Your task to perform on an android device: Open Maps and search for coffee Image 0: 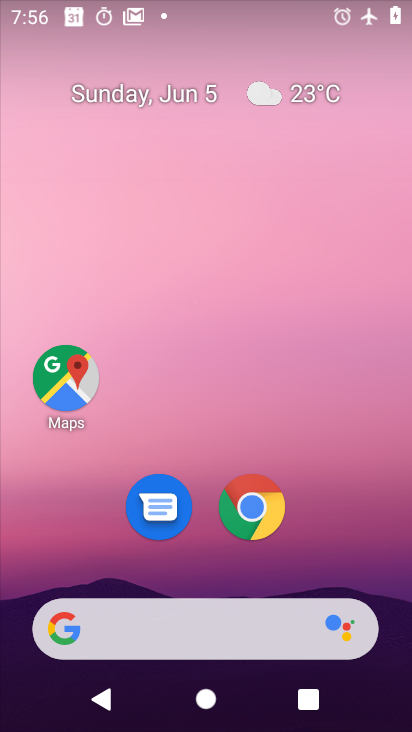
Step 0: drag from (287, 663) to (250, 205)
Your task to perform on an android device: Open Maps and search for coffee Image 1: 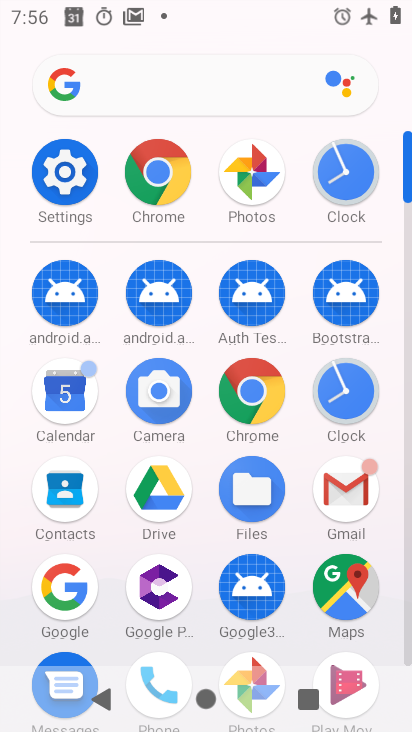
Step 1: click (353, 573)
Your task to perform on an android device: Open Maps and search for coffee Image 2: 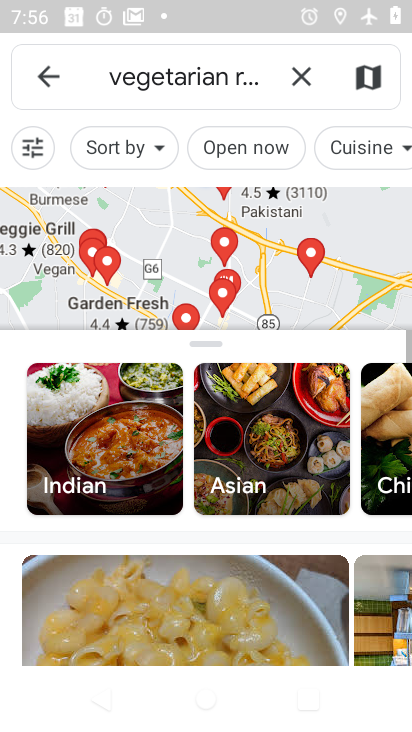
Step 2: click (294, 69)
Your task to perform on an android device: Open Maps and search for coffee Image 3: 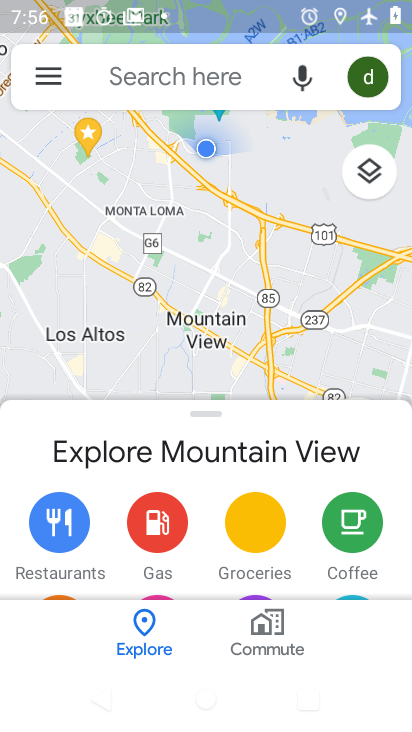
Step 3: click (183, 74)
Your task to perform on an android device: Open Maps and search for coffee Image 4: 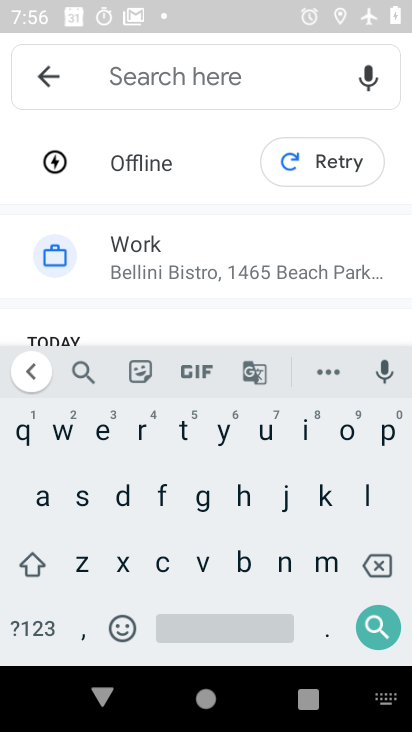
Step 4: click (146, 568)
Your task to perform on an android device: Open Maps and search for coffee Image 5: 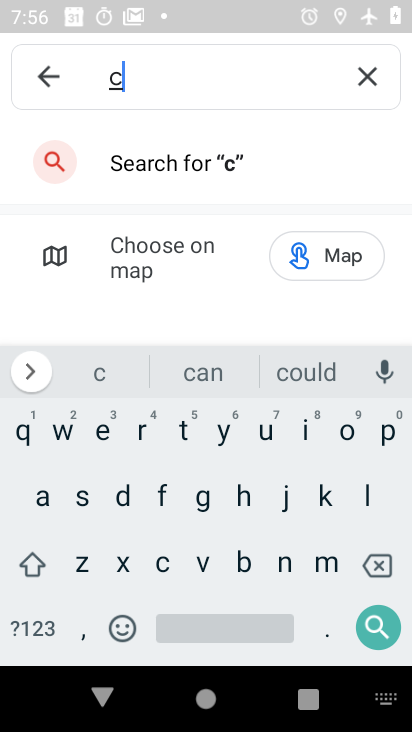
Step 5: press home button
Your task to perform on an android device: Open Maps and search for coffee Image 6: 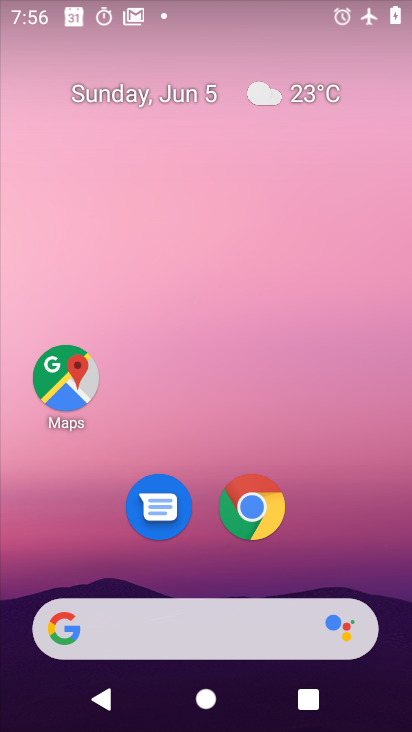
Step 6: drag from (339, 613) to (297, 178)
Your task to perform on an android device: Open Maps and search for coffee Image 7: 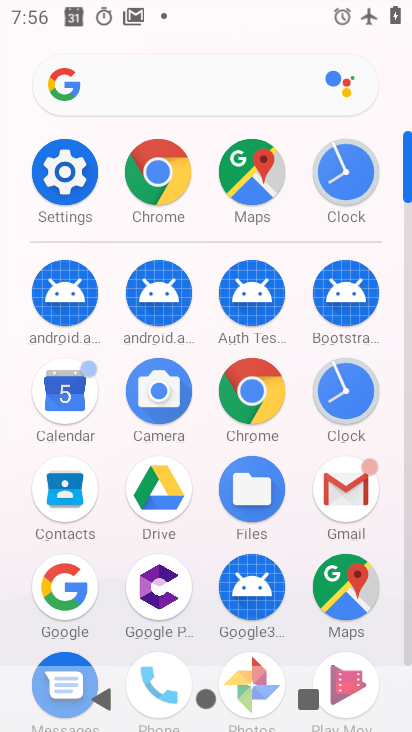
Step 7: click (64, 164)
Your task to perform on an android device: Open Maps and search for coffee Image 8: 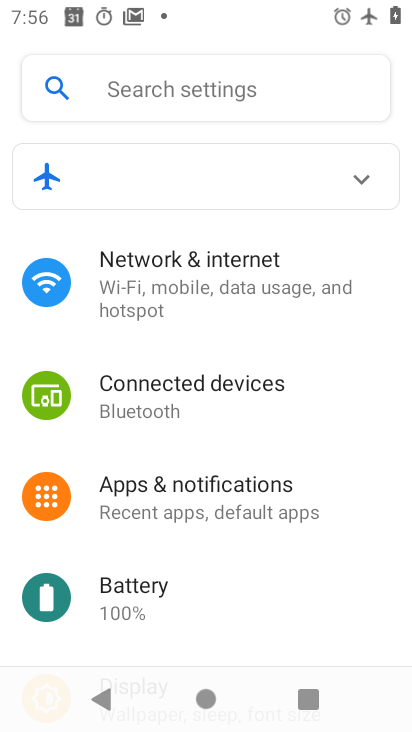
Step 8: click (227, 284)
Your task to perform on an android device: Open Maps and search for coffee Image 9: 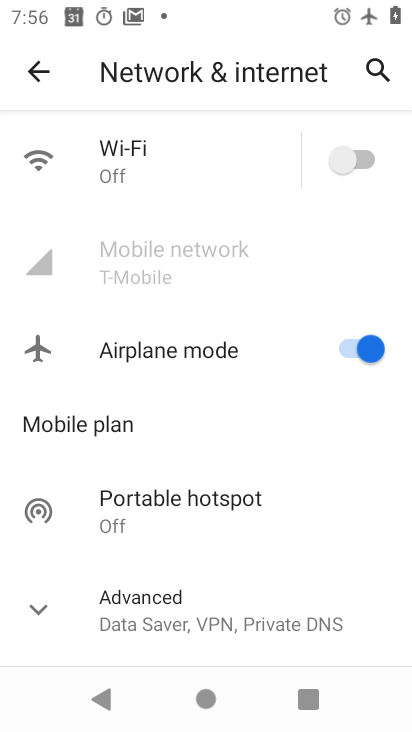
Step 9: click (339, 338)
Your task to perform on an android device: Open Maps and search for coffee Image 10: 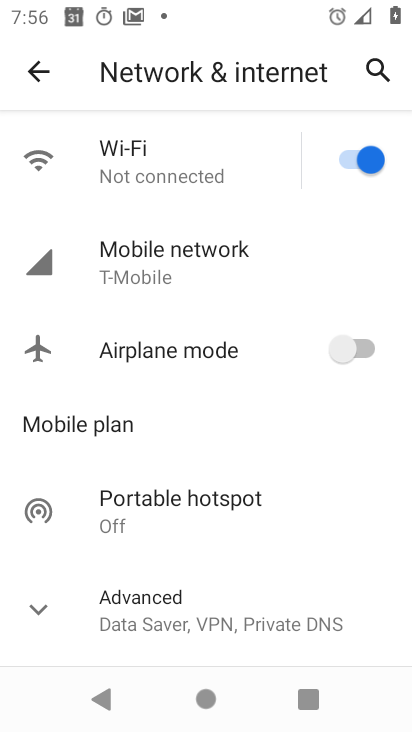
Step 10: press home button
Your task to perform on an android device: Open Maps and search for coffee Image 11: 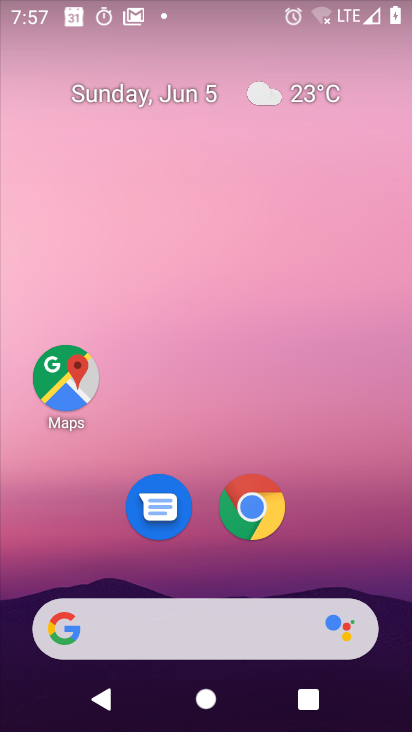
Step 11: click (60, 394)
Your task to perform on an android device: Open Maps and search for coffee Image 12: 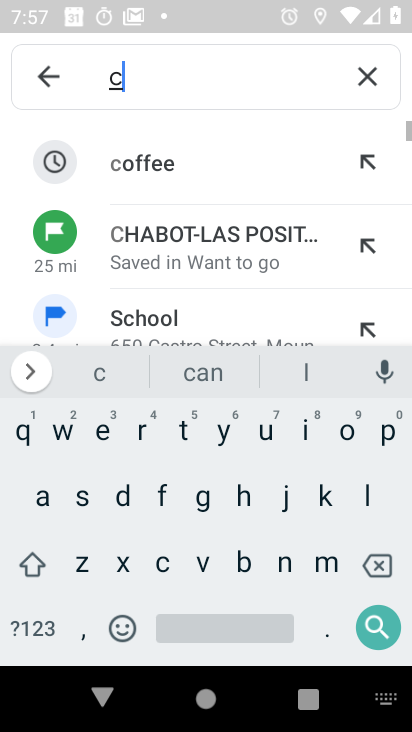
Step 12: click (175, 178)
Your task to perform on an android device: Open Maps and search for coffee Image 13: 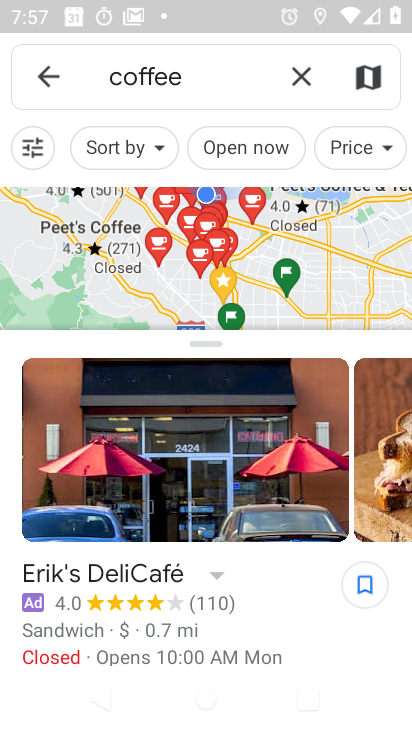
Step 13: task complete